Your task to perform on an android device: Go to sound settings Image 0: 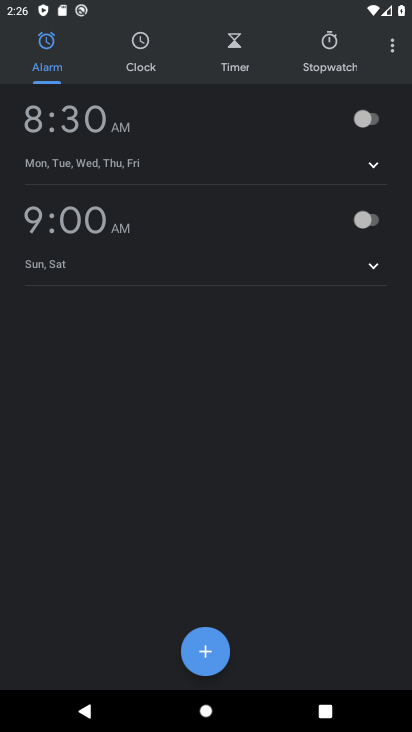
Step 0: click (182, 320)
Your task to perform on an android device: Go to sound settings Image 1: 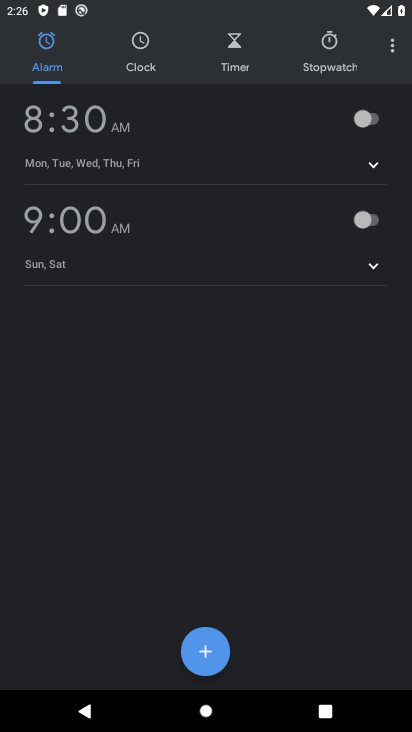
Step 1: press back button
Your task to perform on an android device: Go to sound settings Image 2: 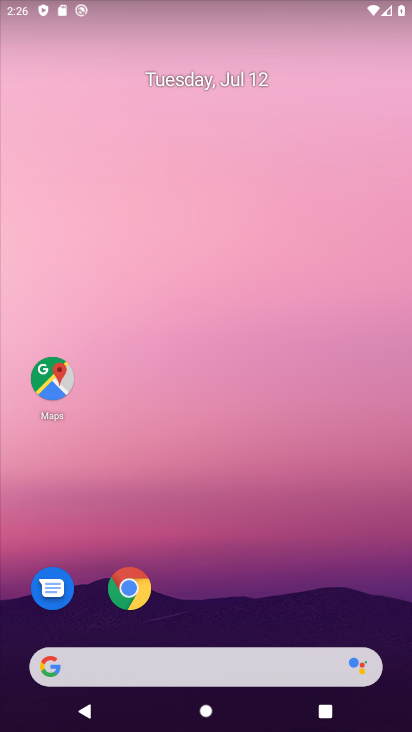
Step 2: drag from (269, 504) to (176, 146)
Your task to perform on an android device: Go to sound settings Image 3: 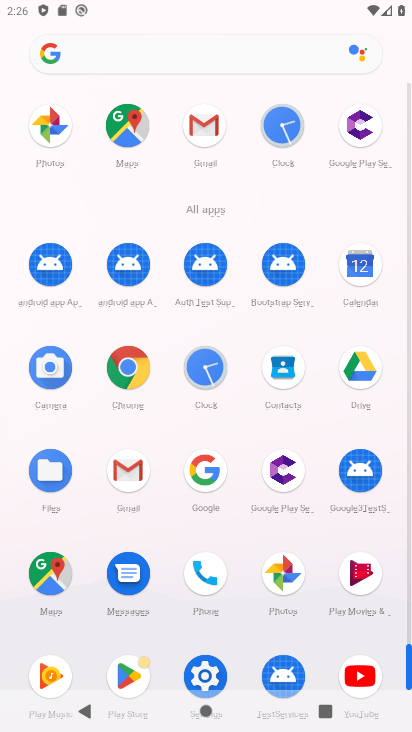
Step 3: click (216, 675)
Your task to perform on an android device: Go to sound settings Image 4: 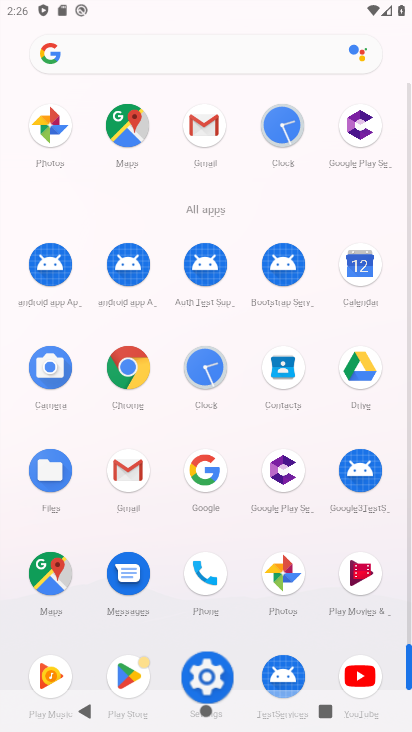
Step 4: click (215, 674)
Your task to perform on an android device: Go to sound settings Image 5: 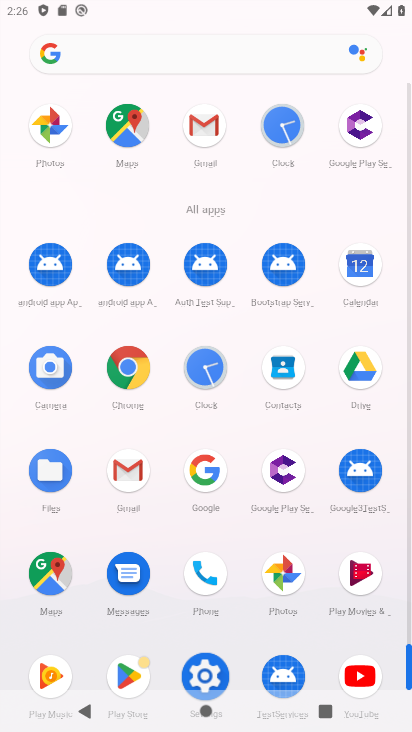
Step 5: click (215, 674)
Your task to perform on an android device: Go to sound settings Image 6: 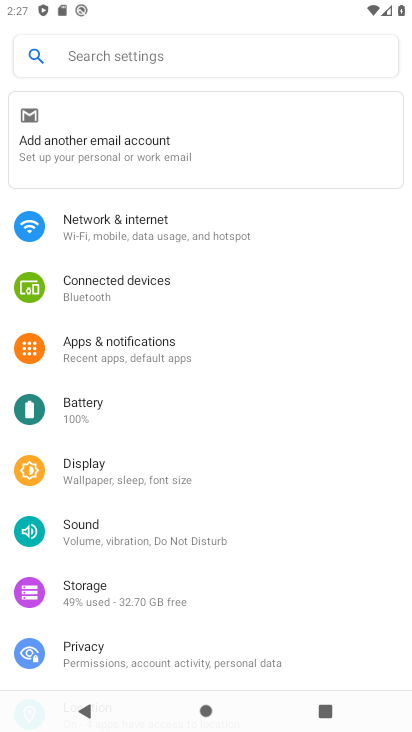
Step 6: task complete